Your task to perform on an android device: What's on the menu at Papa Murphy's? Image 0: 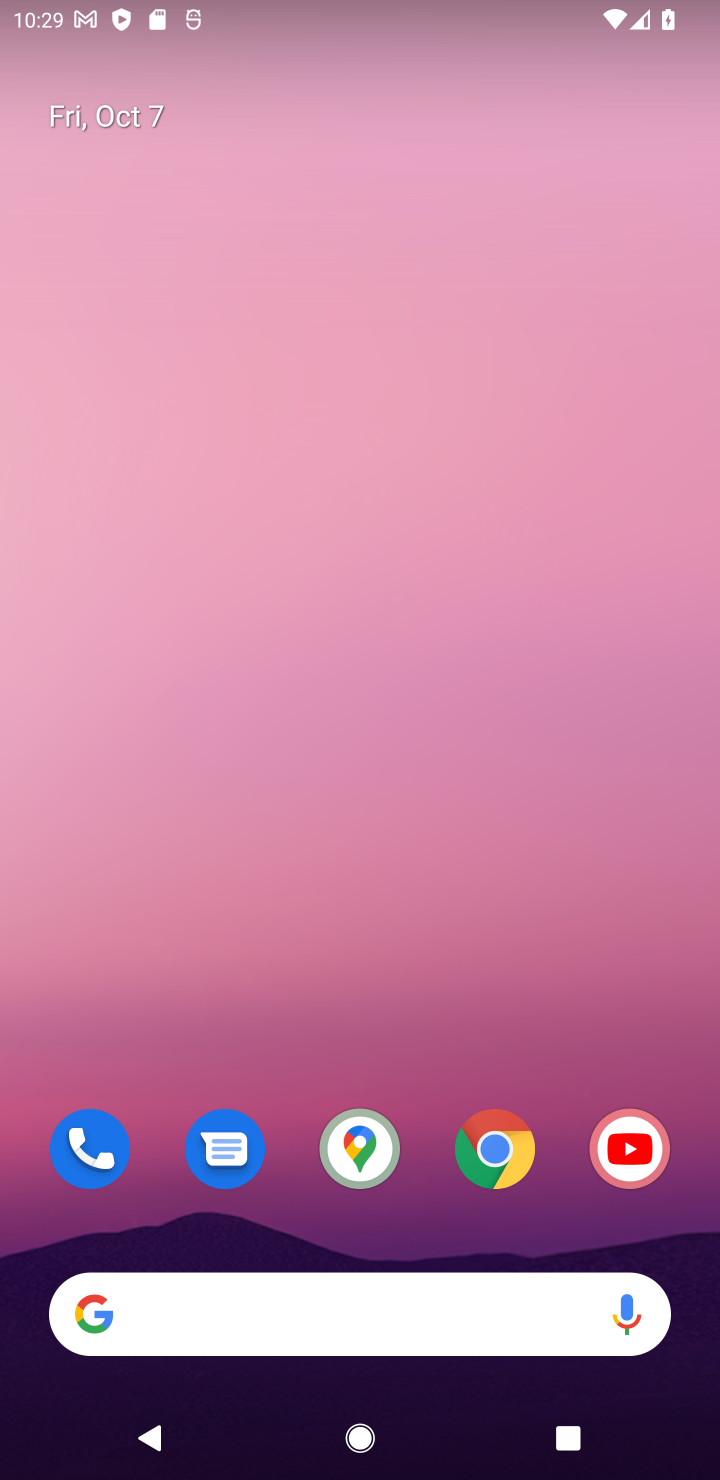
Step 0: click (642, 1152)
Your task to perform on an android device: What's on the menu at Papa Murphy's? Image 1: 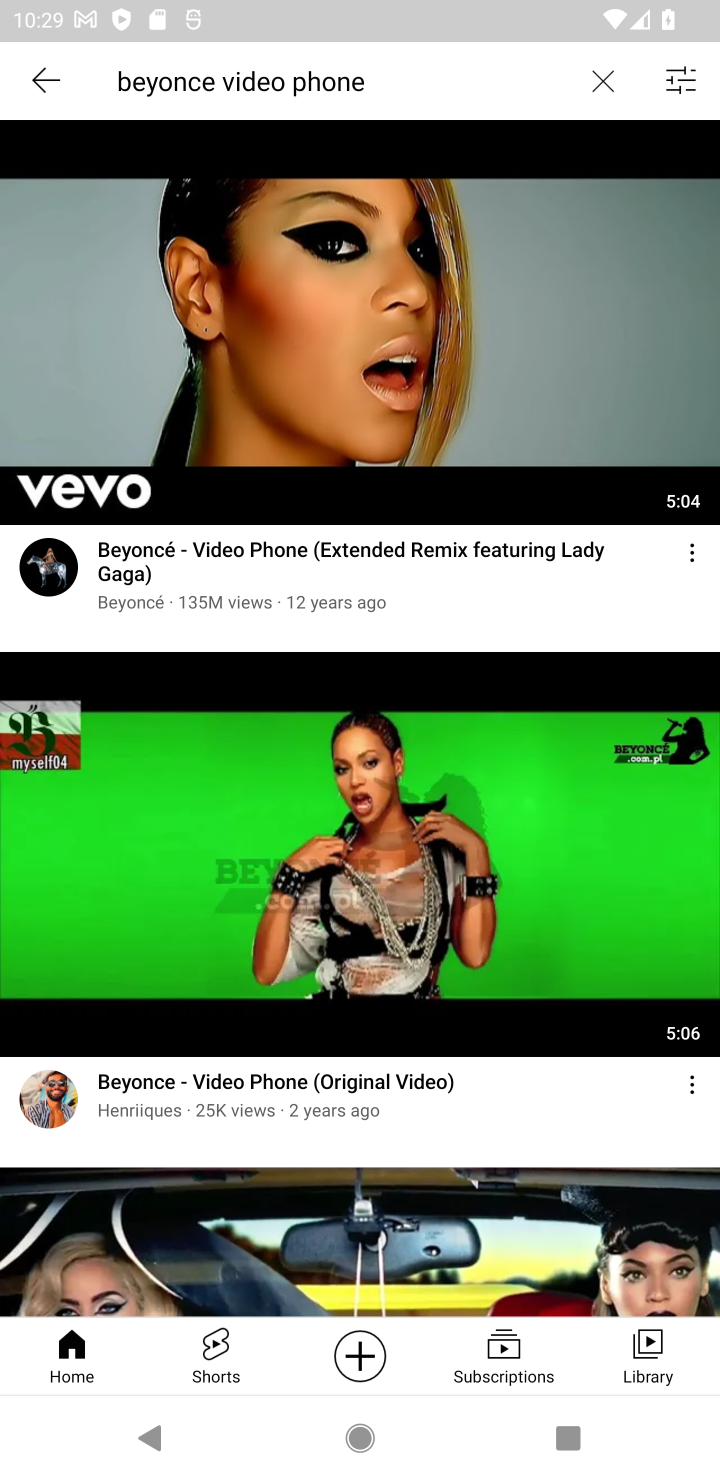
Step 1: press home button
Your task to perform on an android device: What's on the menu at Papa Murphy's? Image 2: 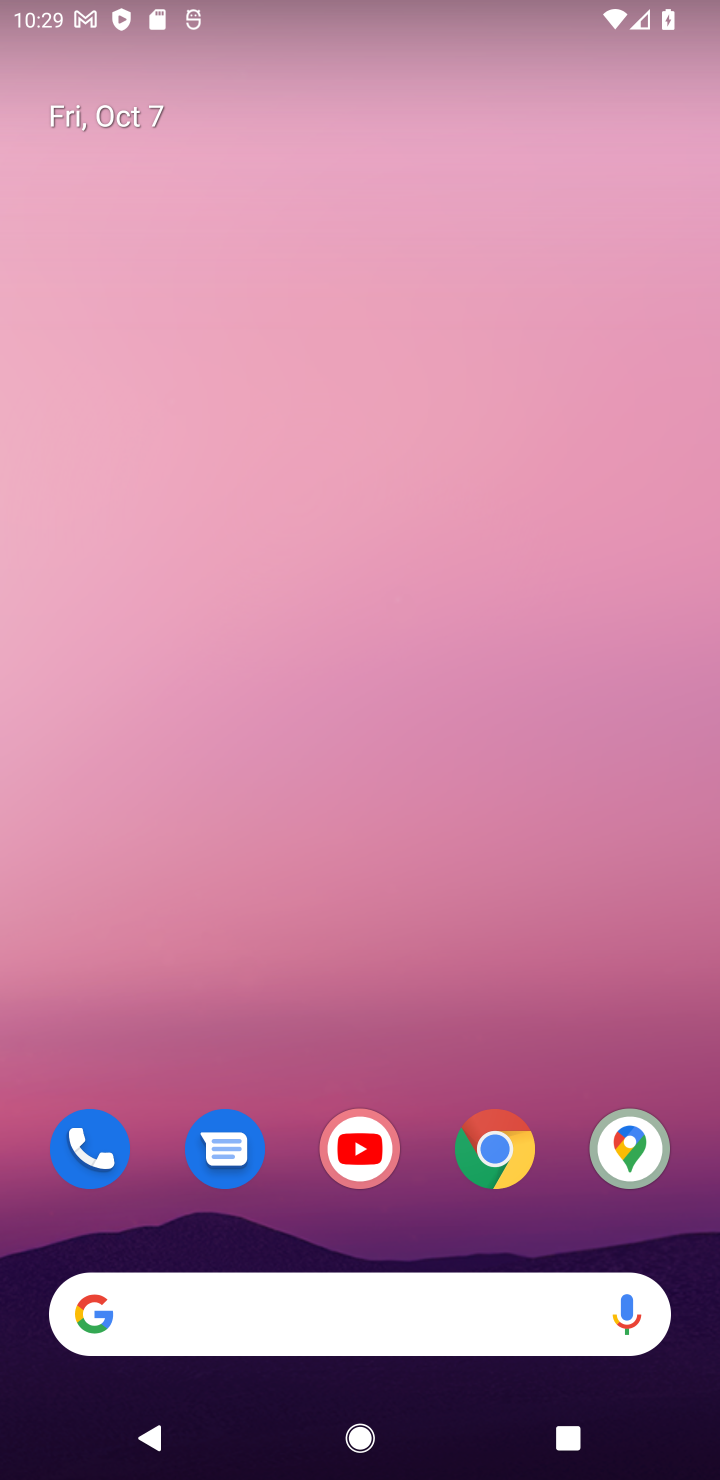
Step 2: click (326, 1321)
Your task to perform on an android device: What's on the menu at Papa Murphy's? Image 3: 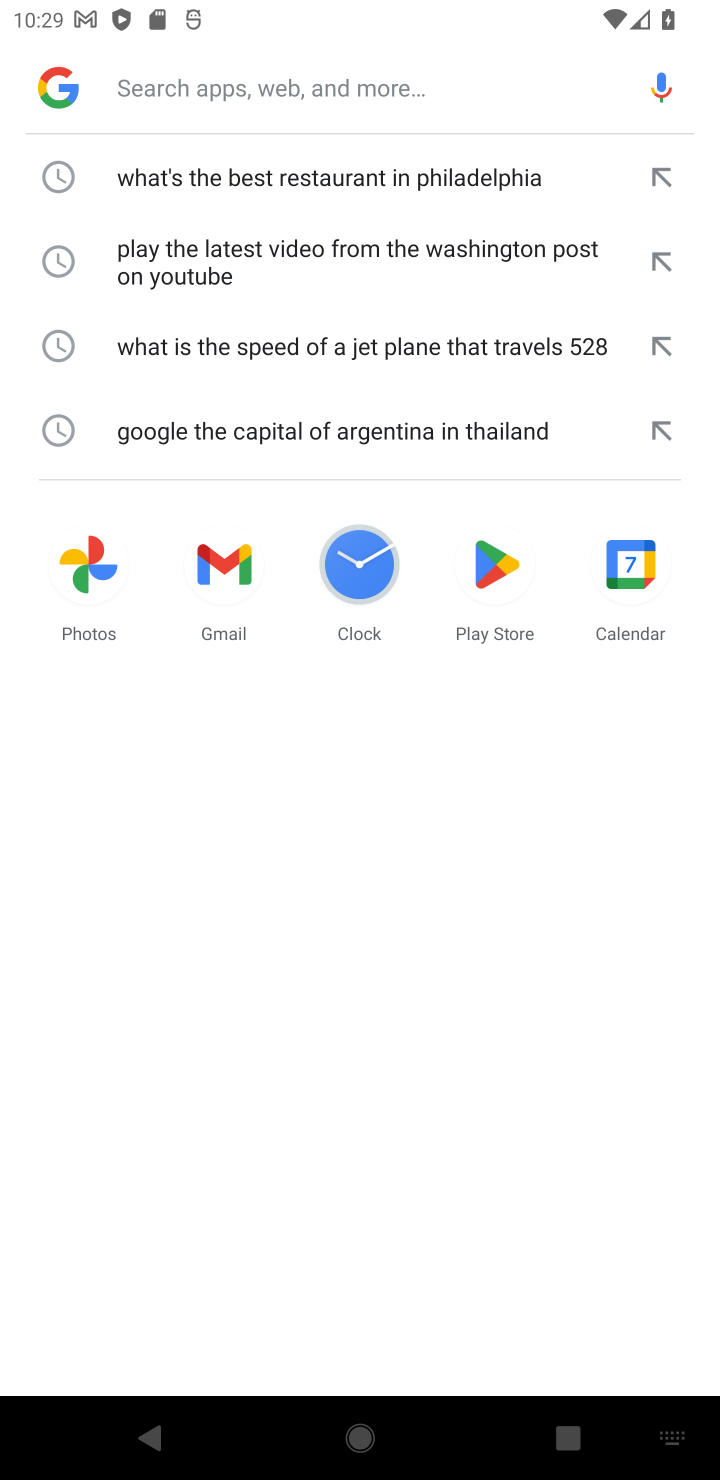
Step 3: type "What's on the menu at Papa Murphy's?"
Your task to perform on an android device: What's on the menu at Papa Murphy's? Image 4: 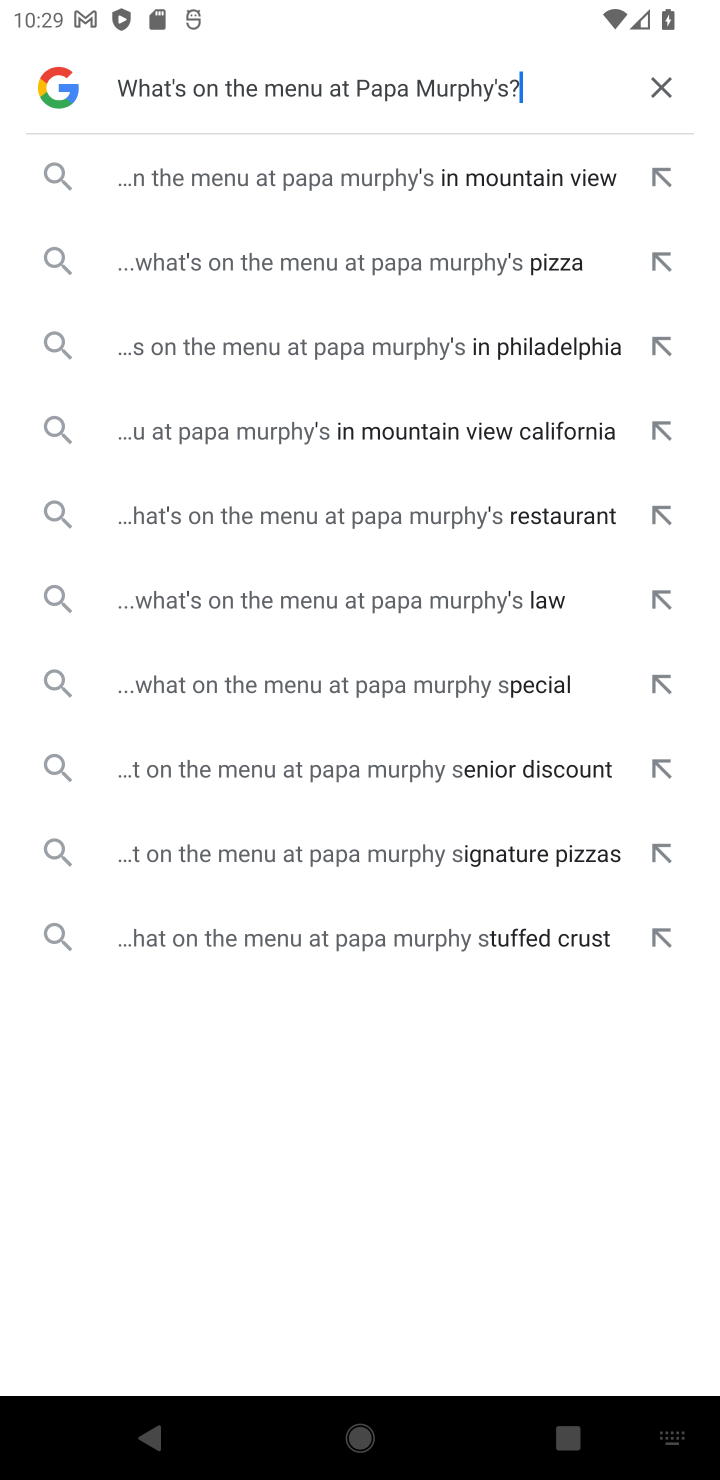
Step 4: click (459, 178)
Your task to perform on an android device: What's on the menu at Papa Murphy's? Image 5: 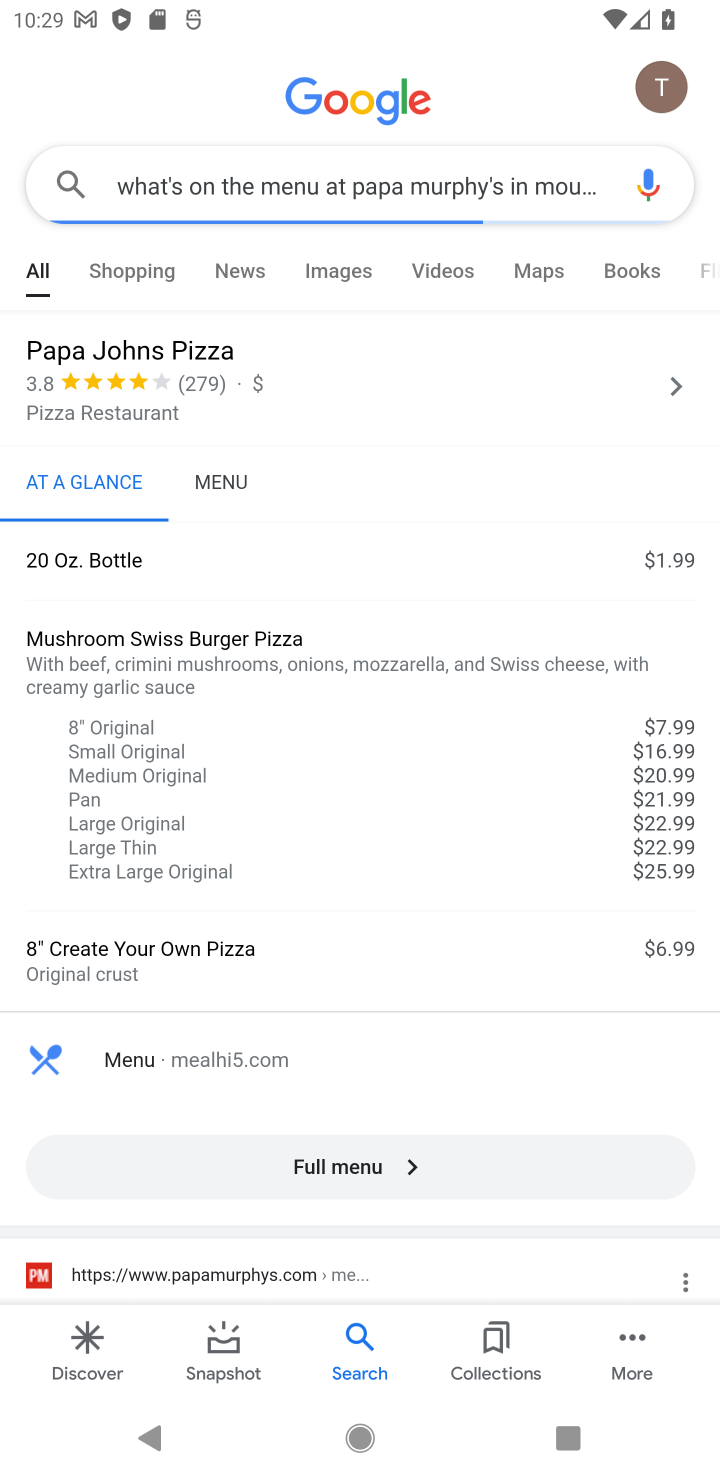
Step 5: task complete